Your task to perform on an android device: What's the weather today? Image 0: 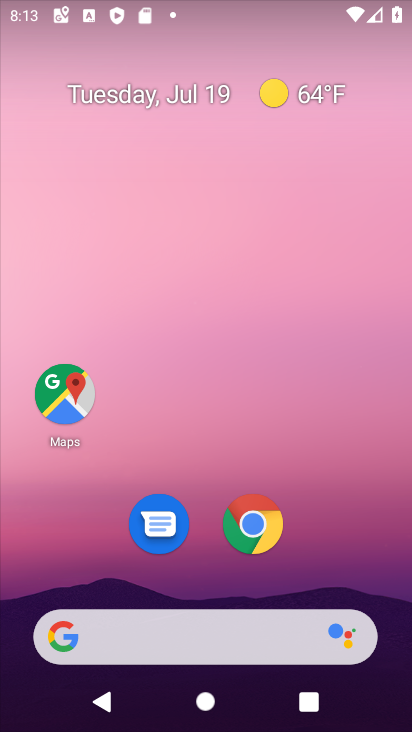
Step 0: click (140, 638)
Your task to perform on an android device: What's the weather today? Image 1: 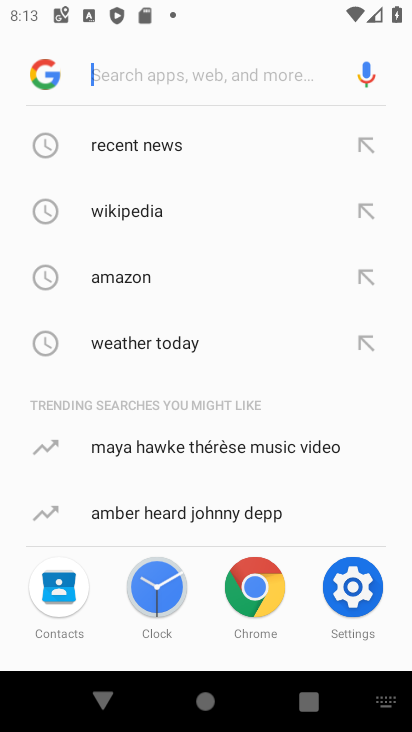
Step 1: click (153, 333)
Your task to perform on an android device: What's the weather today? Image 2: 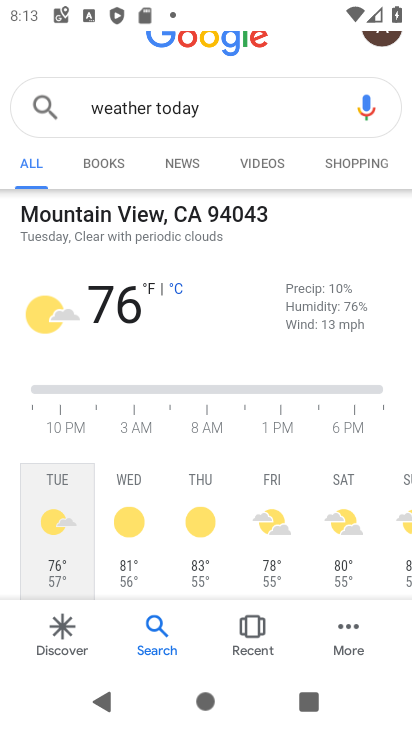
Step 2: drag from (223, 554) to (241, 260)
Your task to perform on an android device: What's the weather today? Image 3: 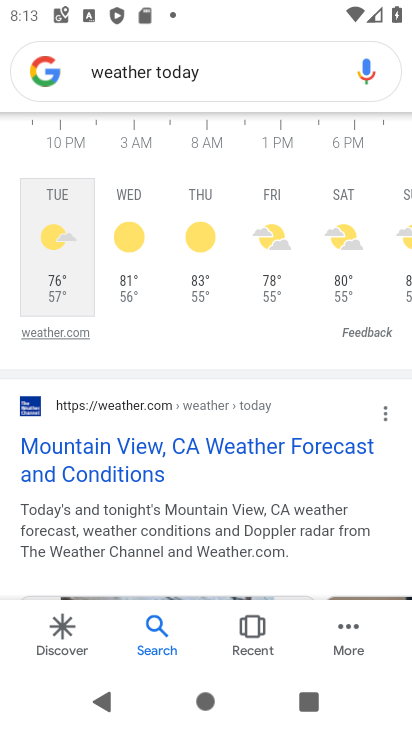
Step 3: drag from (234, 197) to (227, 397)
Your task to perform on an android device: What's the weather today? Image 4: 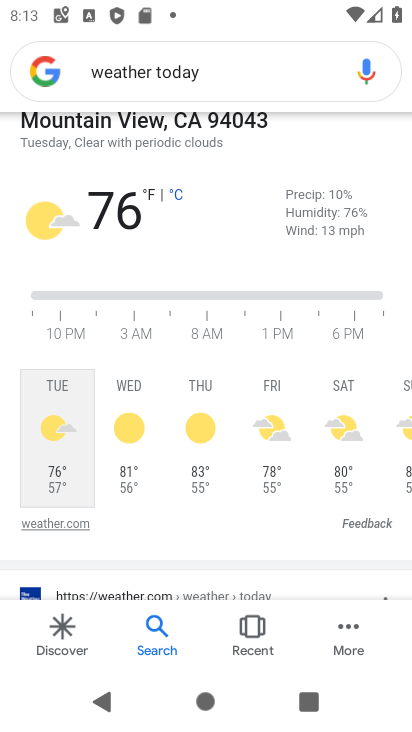
Step 4: drag from (325, 394) to (14, 420)
Your task to perform on an android device: What's the weather today? Image 5: 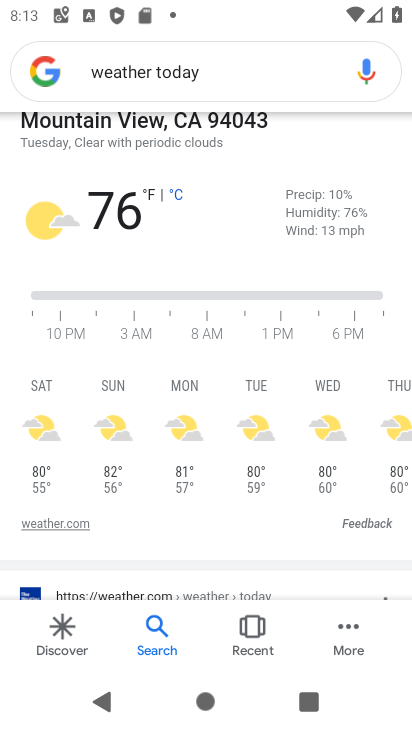
Step 5: drag from (145, 432) to (410, 432)
Your task to perform on an android device: What's the weather today? Image 6: 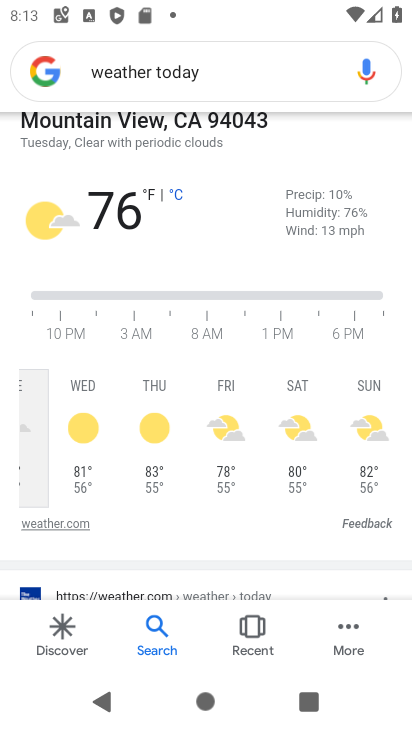
Step 6: drag from (162, 451) to (390, 462)
Your task to perform on an android device: What's the weather today? Image 7: 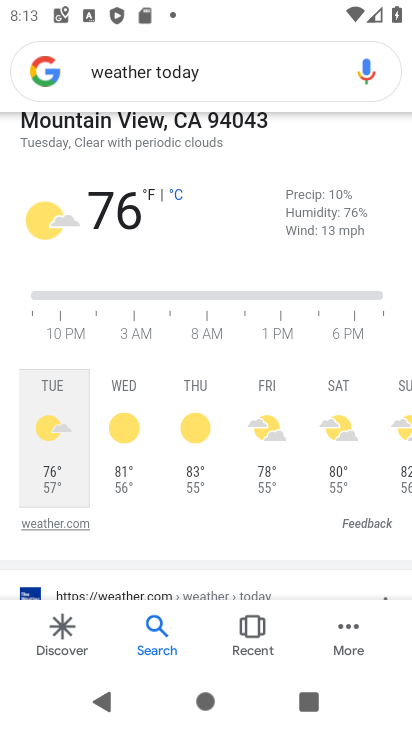
Step 7: click (63, 449)
Your task to perform on an android device: What's the weather today? Image 8: 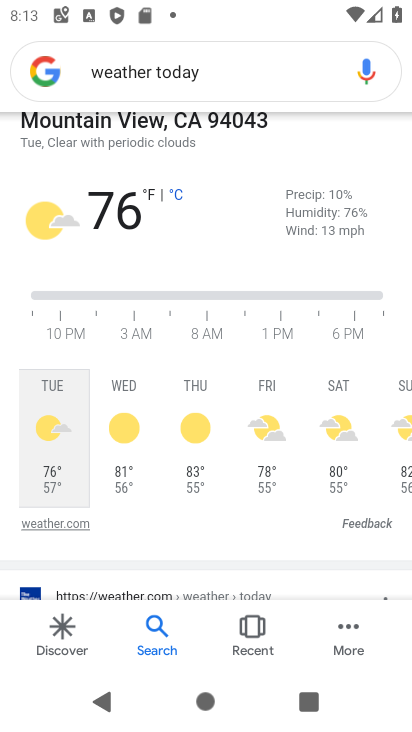
Step 8: click (59, 411)
Your task to perform on an android device: What's the weather today? Image 9: 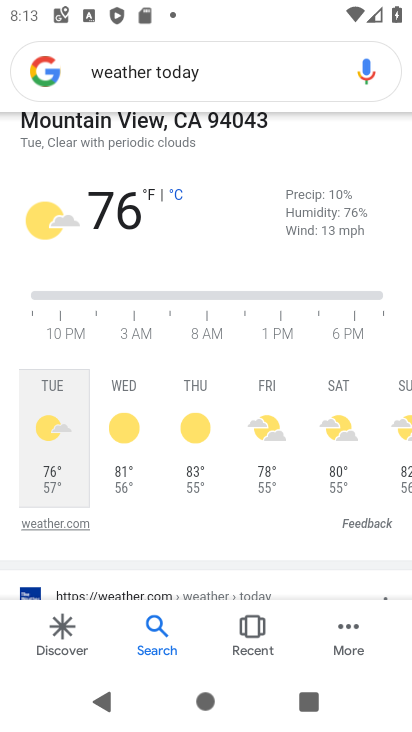
Step 9: click (56, 524)
Your task to perform on an android device: What's the weather today? Image 10: 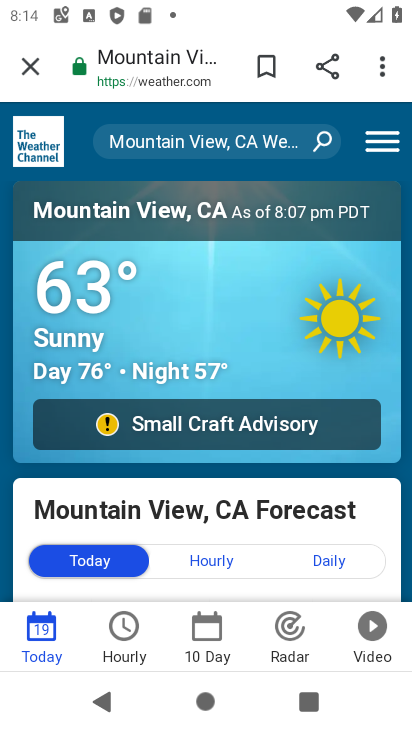
Step 10: drag from (243, 387) to (227, 215)
Your task to perform on an android device: What's the weather today? Image 11: 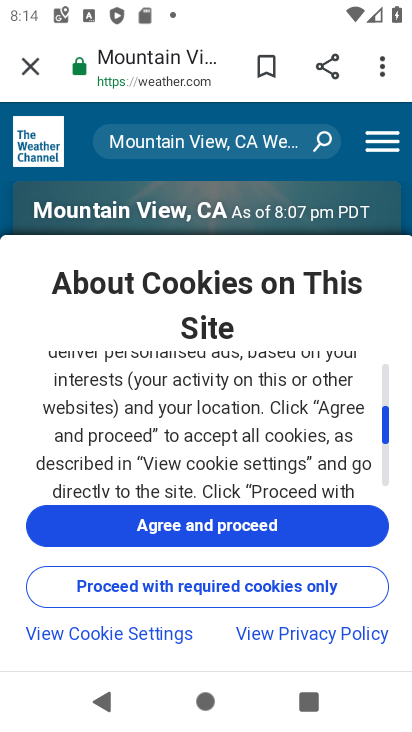
Step 11: click (291, 512)
Your task to perform on an android device: What's the weather today? Image 12: 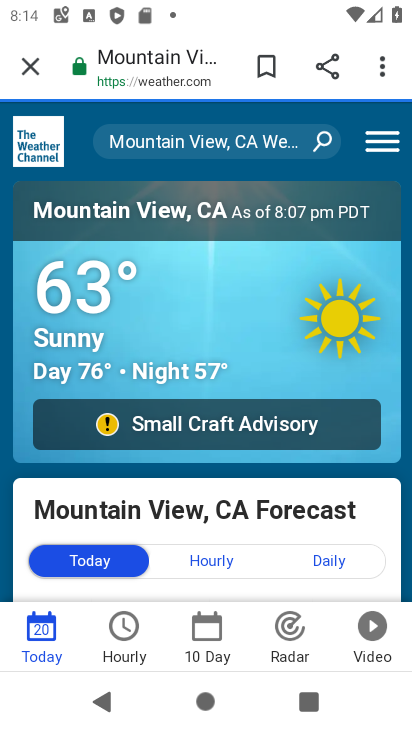
Step 12: task complete